Your task to perform on an android device: Open Google Maps Image 0: 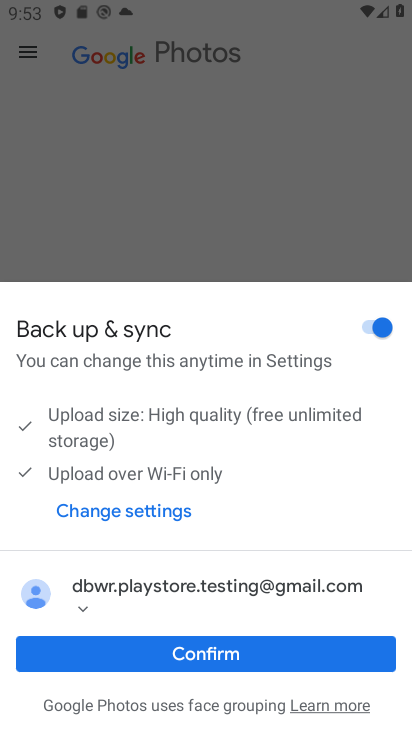
Step 0: press home button
Your task to perform on an android device: Open Google Maps Image 1: 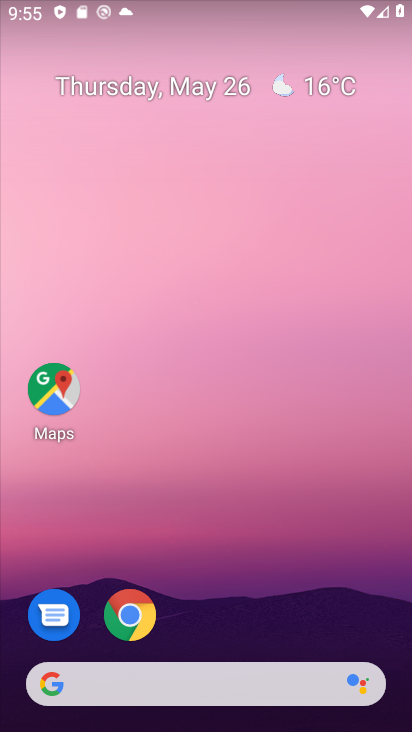
Step 1: drag from (318, 715) to (210, 203)
Your task to perform on an android device: Open Google Maps Image 2: 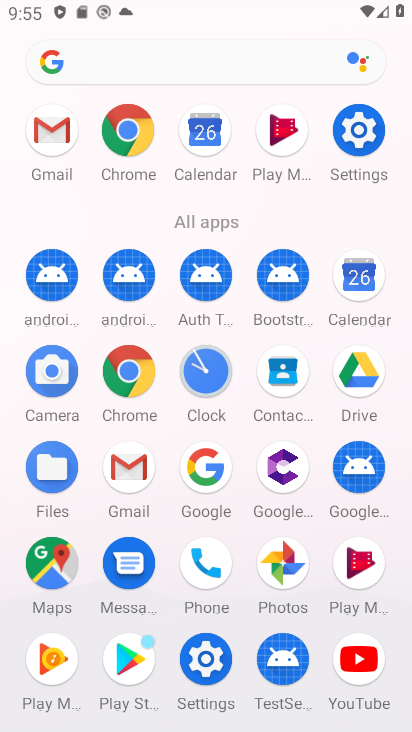
Step 2: click (49, 565)
Your task to perform on an android device: Open Google Maps Image 3: 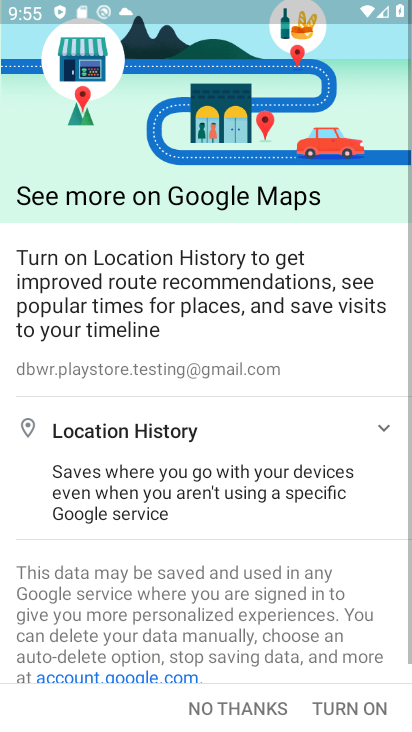
Step 3: click (241, 718)
Your task to perform on an android device: Open Google Maps Image 4: 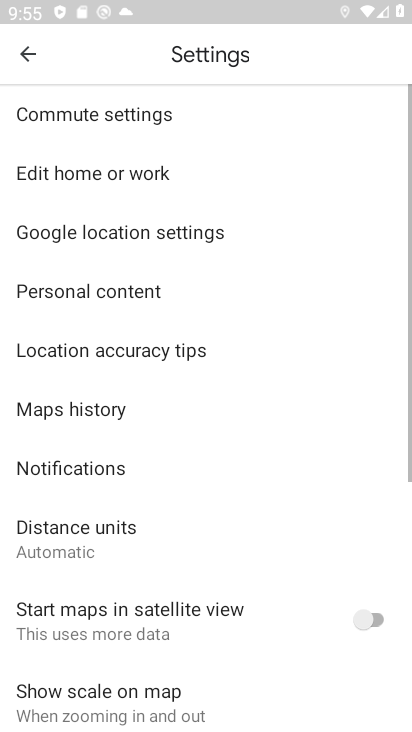
Step 4: click (30, 43)
Your task to perform on an android device: Open Google Maps Image 5: 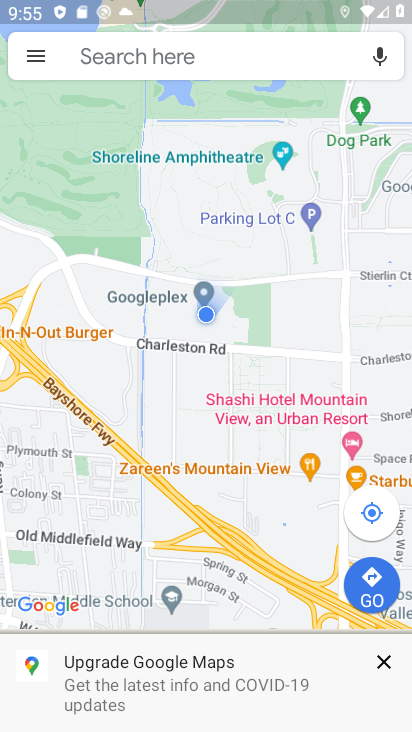
Step 5: click (385, 507)
Your task to perform on an android device: Open Google Maps Image 6: 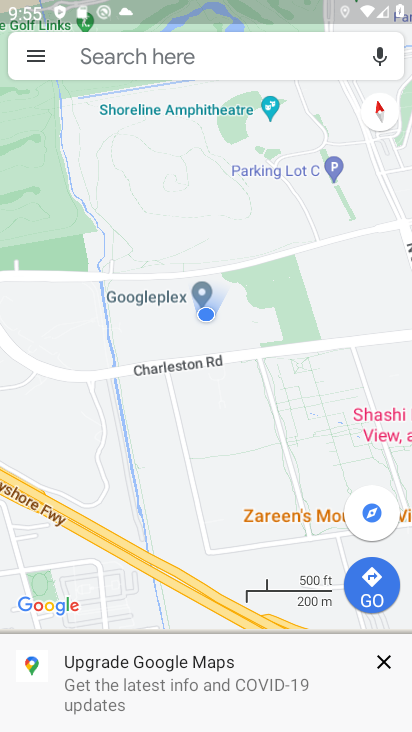
Step 6: task complete